Your task to perform on an android device: change text size in settings app Image 0: 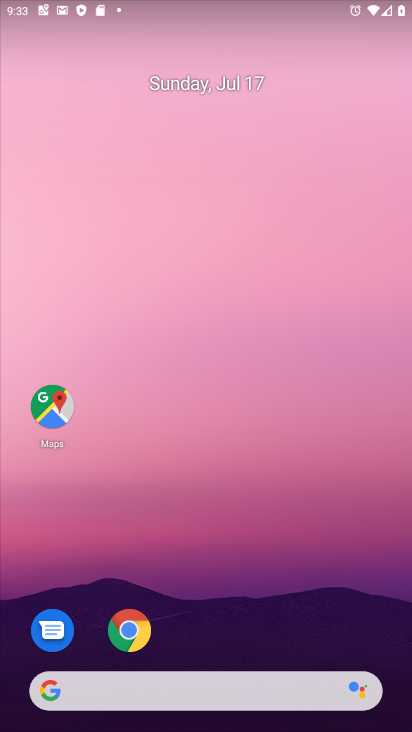
Step 0: drag from (336, 596) to (321, 84)
Your task to perform on an android device: change text size in settings app Image 1: 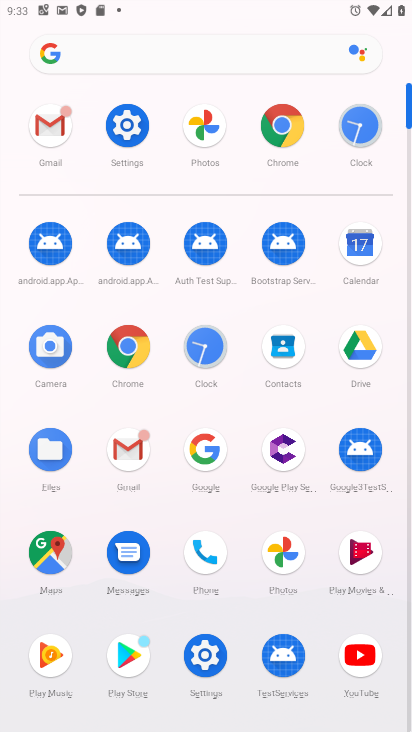
Step 1: drag from (239, 610) to (247, 373)
Your task to perform on an android device: change text size in settings app Image 2: 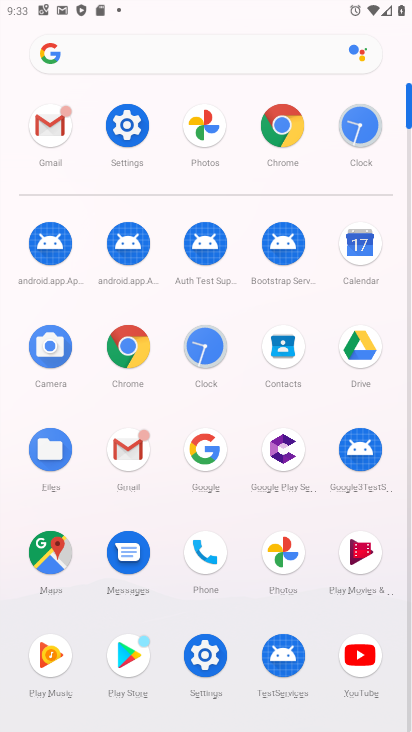
Step 2: click (212, 664)
Your task to perform on an android device: change text size in settings app Image 3: 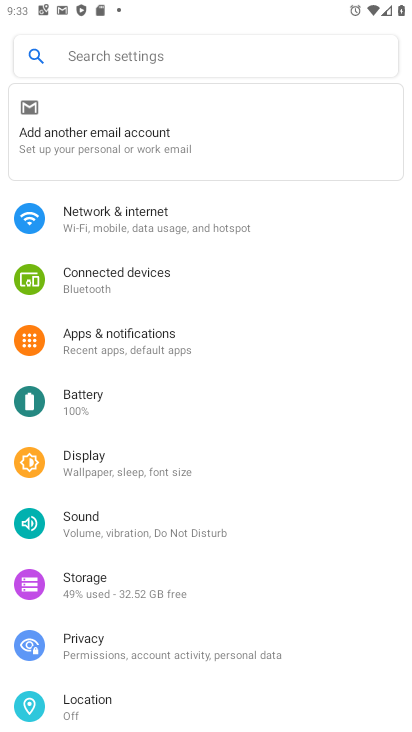
Step 3: drag from (323, 599) to (328, 439)
Your task to perform on an android device: change text size in settings app Image 4: 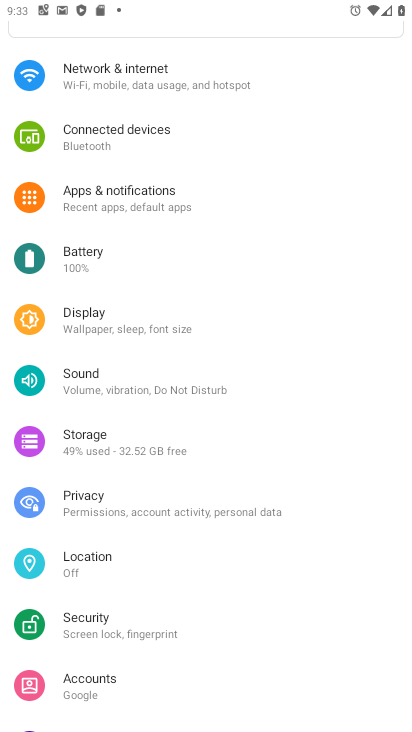
Step 4: drag from (319, 588) to (316, 474)
Your task to perform on an android device: change text size in settings app Image 5: 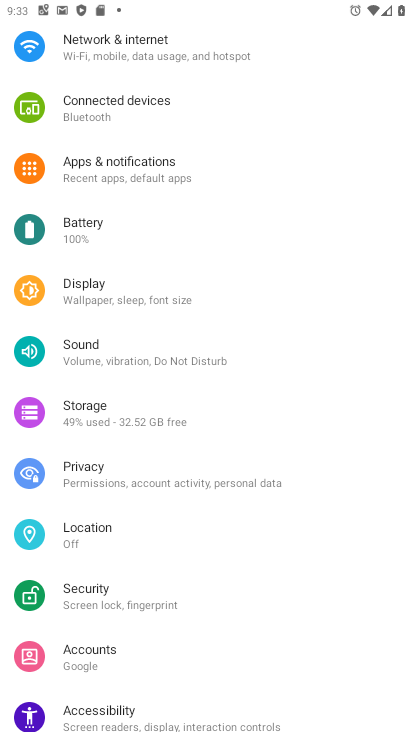
Step 5: drag from (318, 592) to (319, 458)
Your task to perform on an android device: change text size in settings app Image 6: 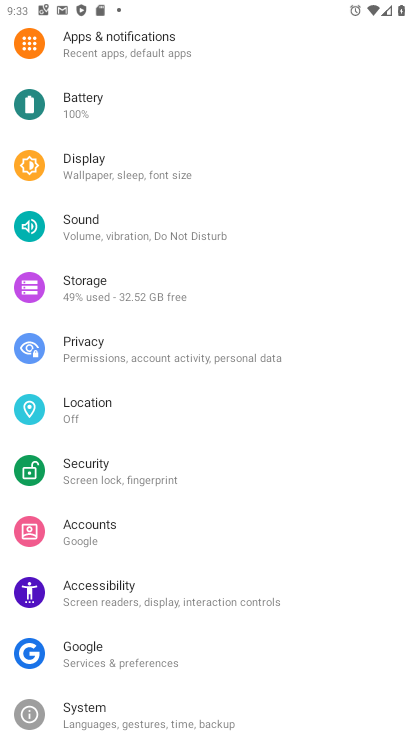
Step 6: drag from (318, 588) to (322, 453)
Your task to perform on an android device: change text size in settings app Image 7: 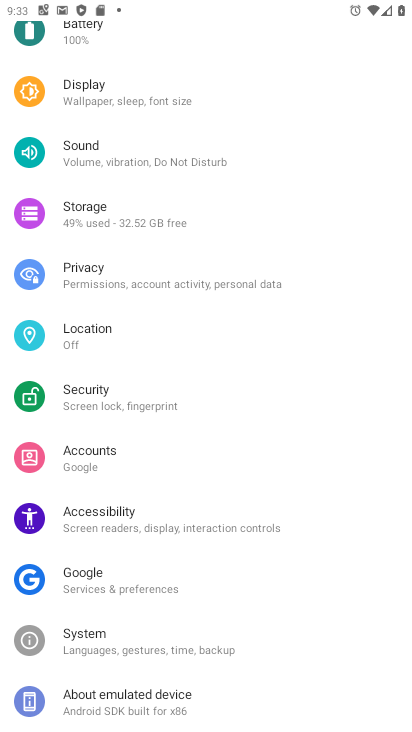
Step 7: drag from (343, 348) to (335, 455)
Your task to perform on an android device: change text size in settings app Image 8: 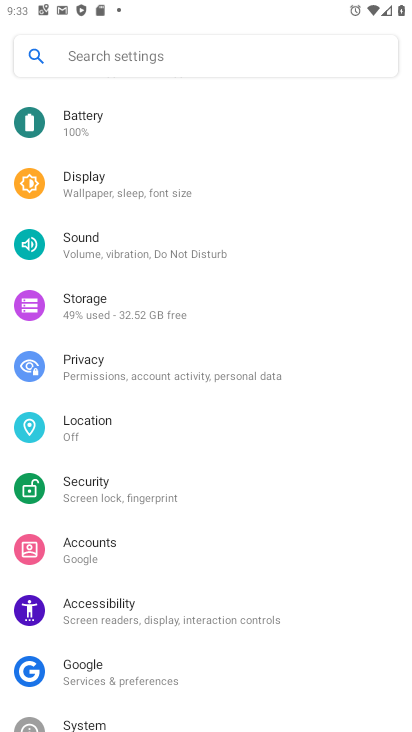
Step 8: drag from (334, 301) to (333, 441)
Your task to perform on an android device: change text size in settings app Image 9: 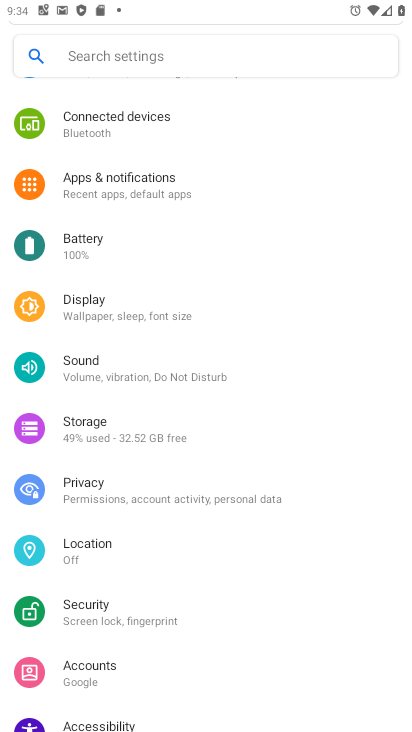
Step 9: drag from (342, 261) to (343, 435)
Your task to perform on an android device: change text size in settings app Image 10: 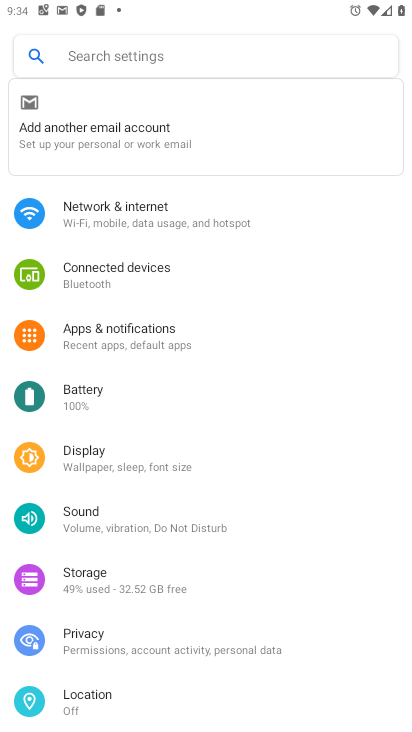
Step 10: drag from (336, 298) to (331, 481)
Your task to perform on an android device: change text size in settings app Image 11: 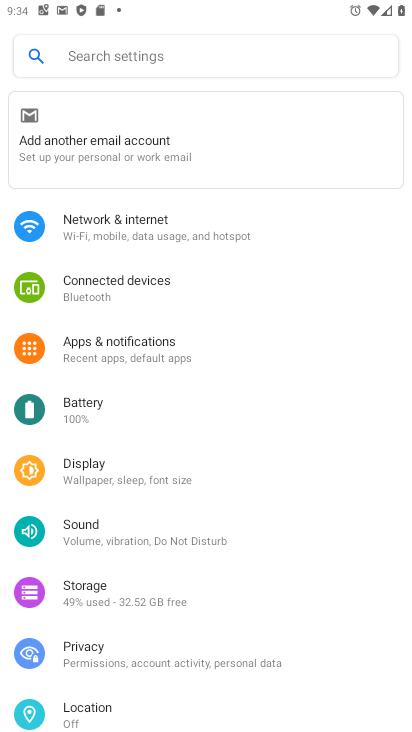
Step 11: drag from (331, 481) to (333, 312)
Your task to perform on an android device: change text size in settings app Image 12: 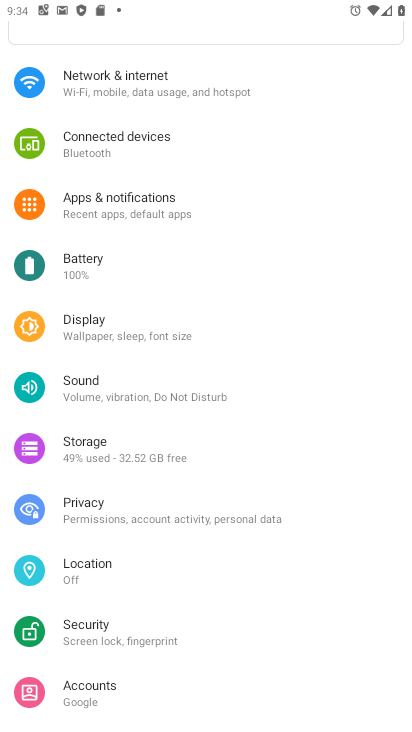
Step 12: drag from (335, 521) to (326, 384)
Your task to perform on an android device: change text size in settings app Image 13: 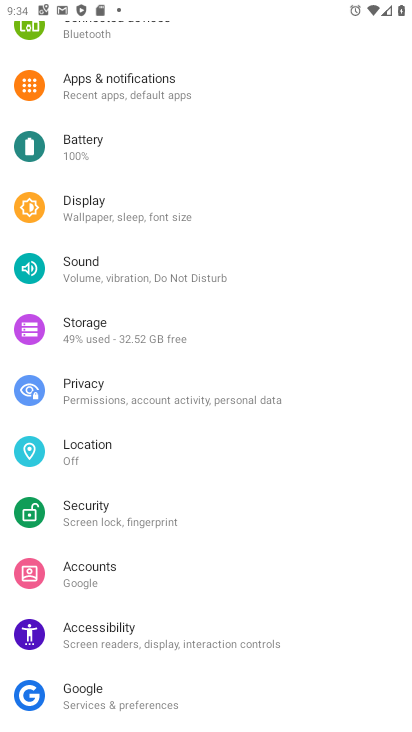
Step 13: drag from (327, 546) to (335, 385)
Your task to perform on an android device: change text size in settings app Image 14: 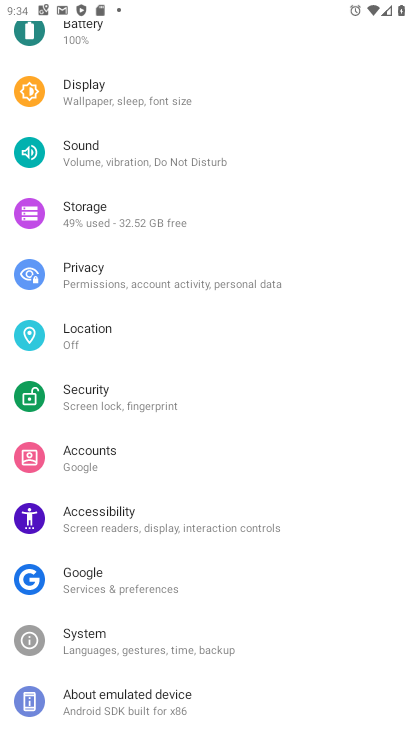
Step 14: drag from (347, 467) to (342, 339)
Your task to perform on an android device: change text size in settings app Image 15: 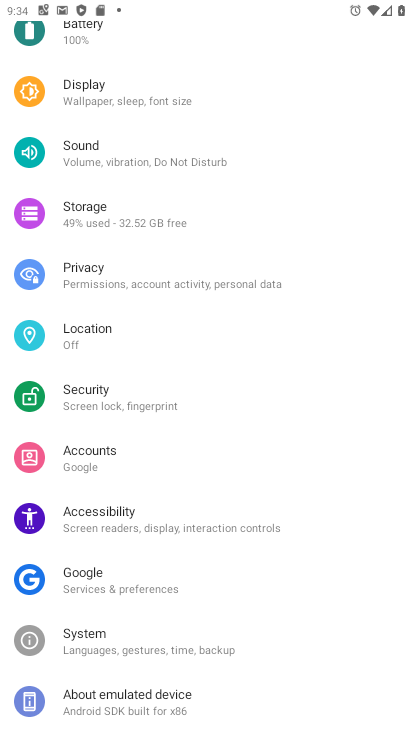
Step 15: drag from (330, 491) to (323, 363)
Your task to perform on an android device: change text size in settings app Image 16: 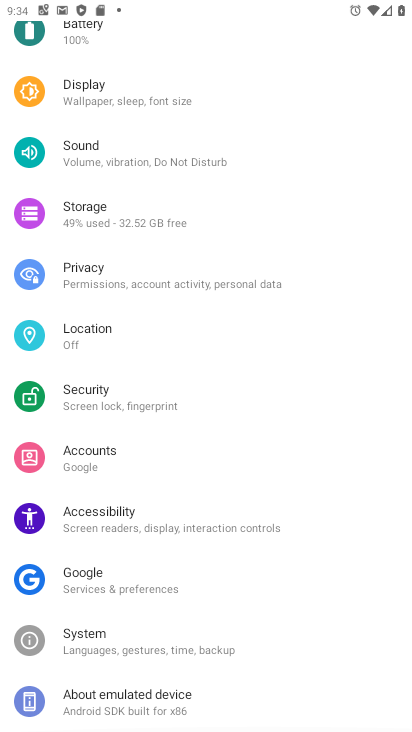
Step 16: drag from (332, 235) to (333, 380)
Your task to perform on an android device: change text size in settings app Image 17: 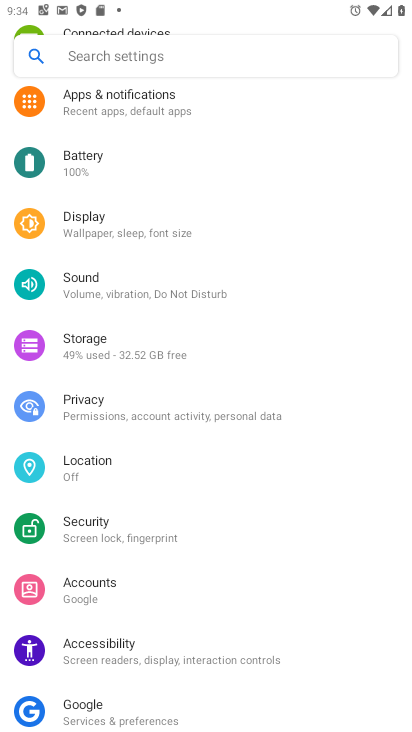
Step 17: drag from (331, 227) to (333, 416)
Your task to perform on an android device: change text size in settings app Image 18: 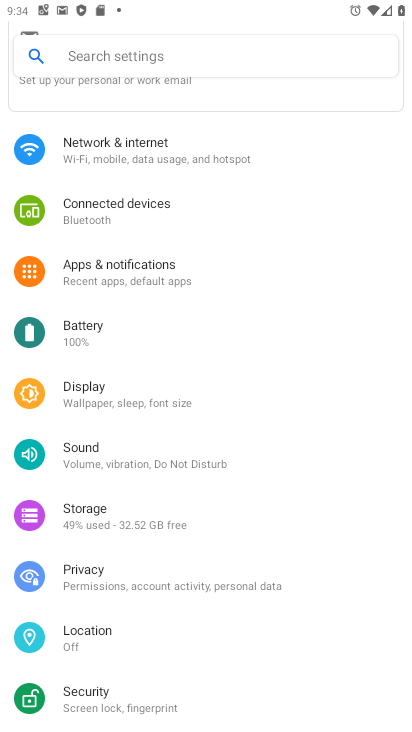
Step 18: drag from (335, 243) to (331, 378)
Your task to perform on an android device: change text size in settings app Image 19: 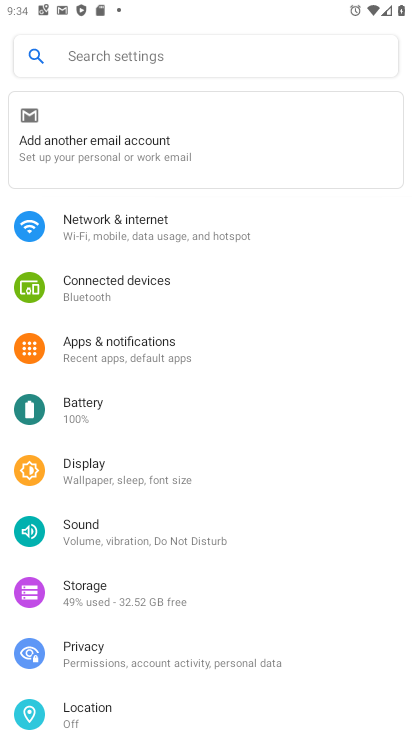
Step 19: drag from (322, 248) to (322, 396)
Your task to perform on an android device: change text size in settings app Image 20: 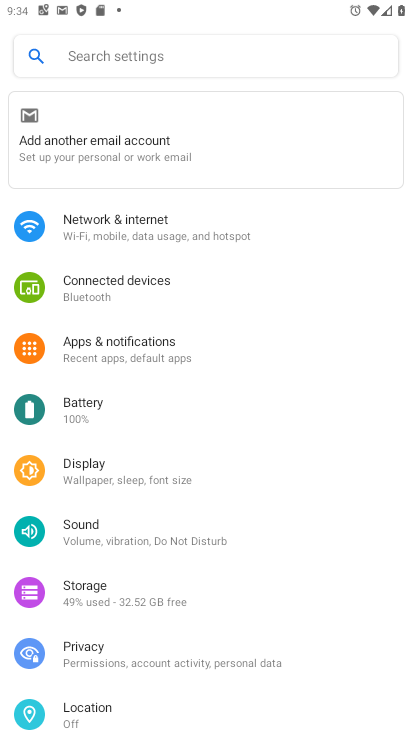
Step 20: click (190, 469)
Your task to perform on an android device: change text size in settings app Image 21: 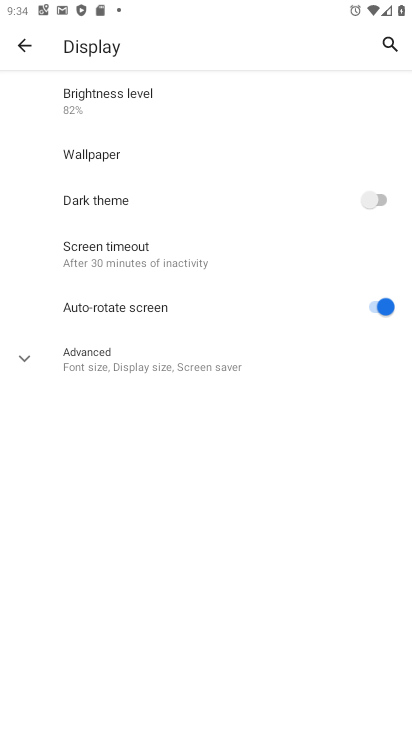
Step 21: click (182, 366)
Your task to perform on an android device: change text size in settings app Image 22: 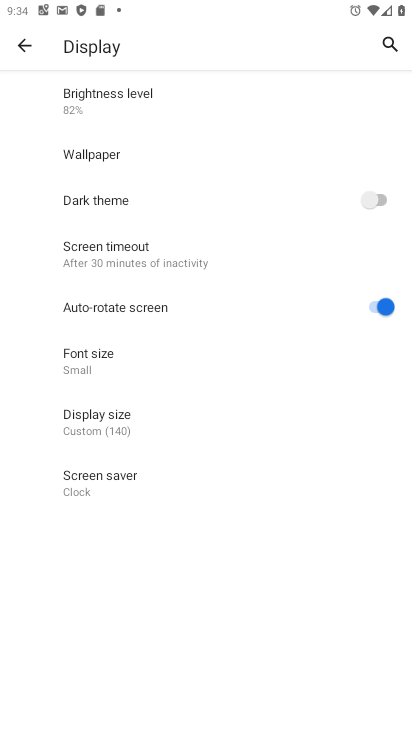
Step 22: drag from (224, 453) to (225, 355)
Your task to perform on an android device: change text size in settings app Image 23: 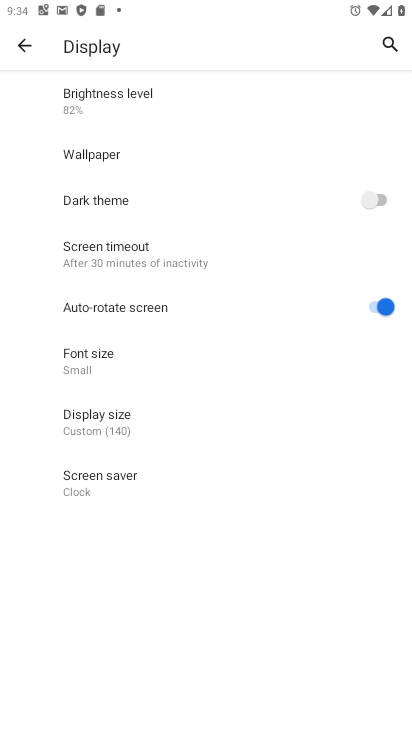
Step 23: click (102, 360)
Your task to perform on an android device: change text size in settings app Image 24: 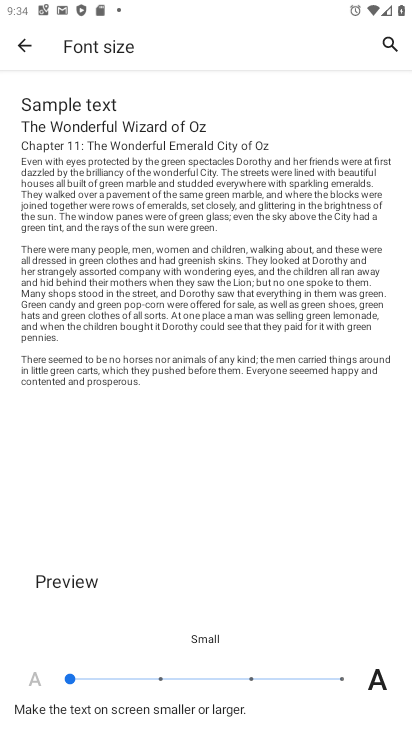
Step 24: click (160, 679)
Your task to perform on an android device: change text size in settings app Image 25: 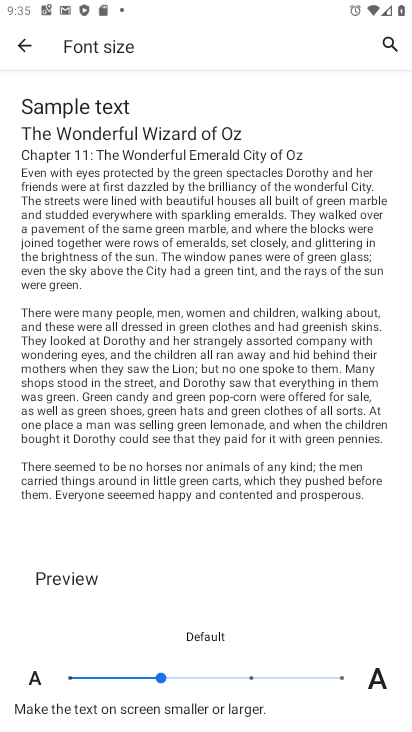
Step 25: task complete